Your task to perform on an android device: Open calendar and show me the second week of next month Image 0: 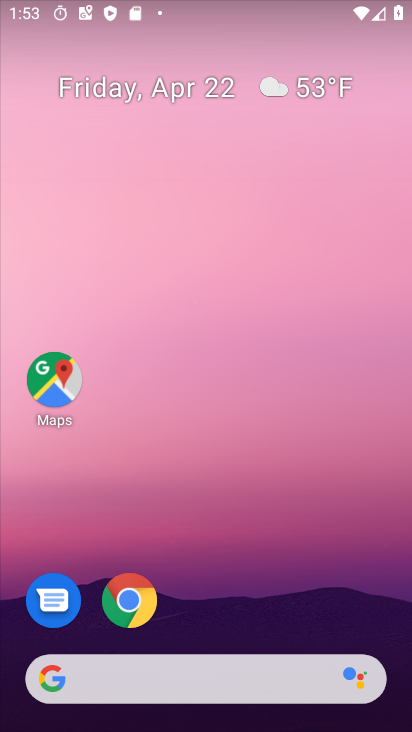
Step 0: drag from (209, 644) to (199, 151)
Your task to perform on an android device: Open calendar and show me the second week of next month Image 1: 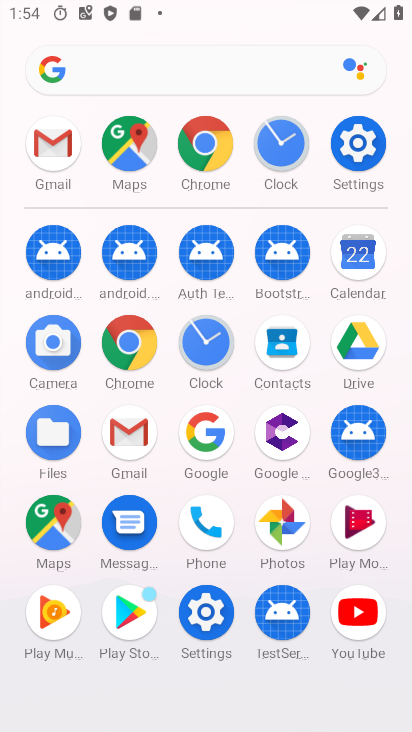
Step 1: click (357, 258)
Your task to perform on an android device: Open calendar and show me the second week of next month Image 2: 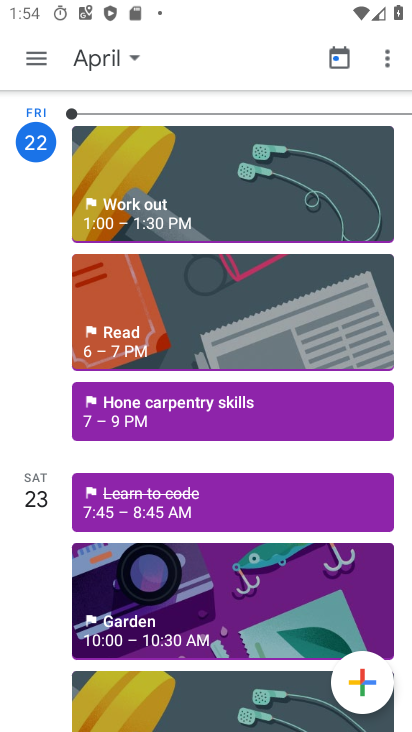
Step 2: click (95, 62)
Your task to perform on an android device: Open calendar and show me the second week of next month Image 3: 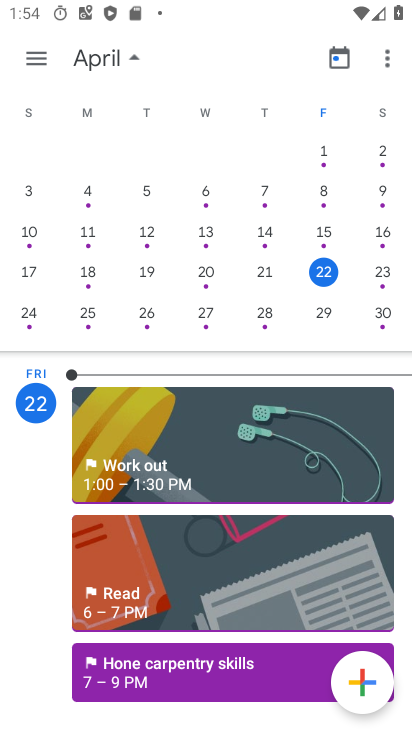
Step 3: drag from (340, 247) to (0, 313)
Your task to perform on an android device: Open calendar and show me the second week of next month Image 4: 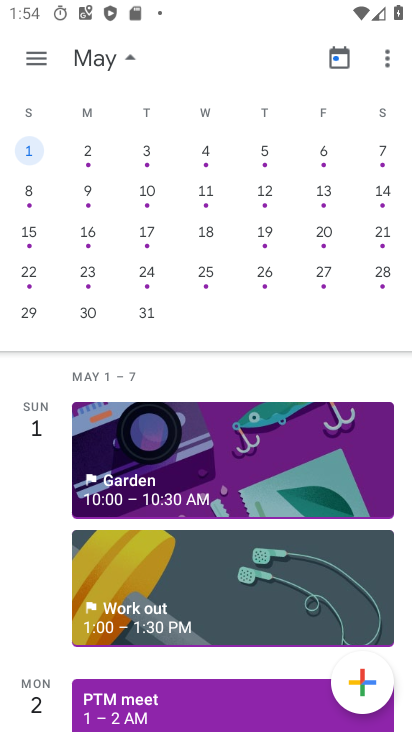
Step 4: click (85, 184)
Your task to perform on an android device: Open calendar and show me the second week of next month Image 5: 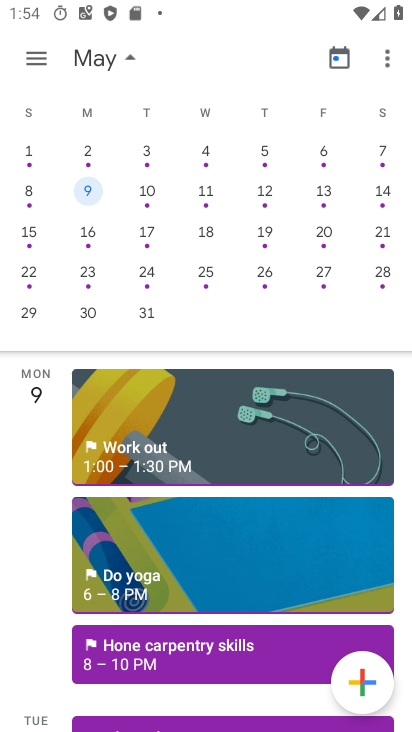
Step 5: task complete